Your task to perform on an android device: What's the weather? Image 0: 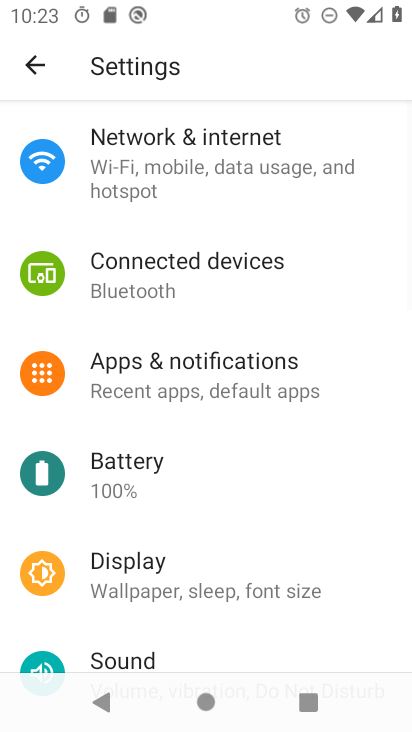
Step 0: press home button
Your task to perform on an android device: What's the weather? Image 1: 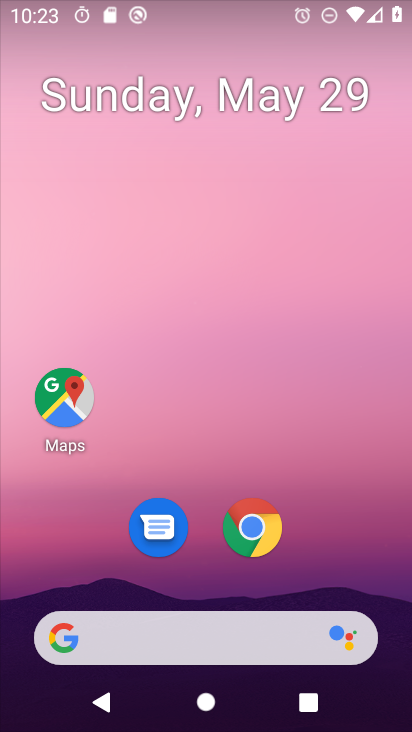
Step 1: drag from (389, 647) to (280, 121)
Your task to perform on an android device: What's the weather? Image 2: 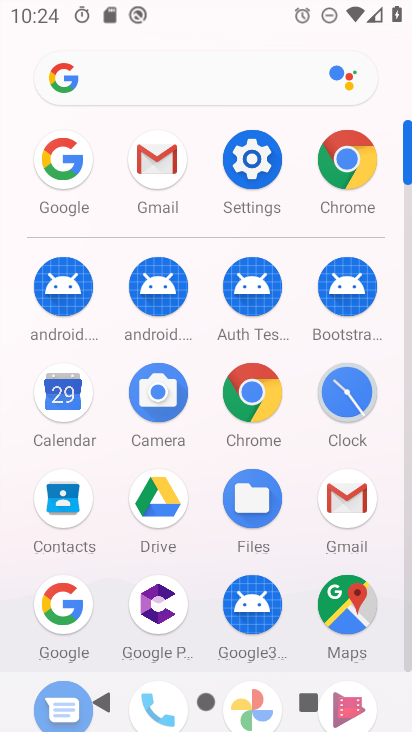
Step 2: click (68, 582)
Your task to perform on an android device: What's the weather? Image 3: 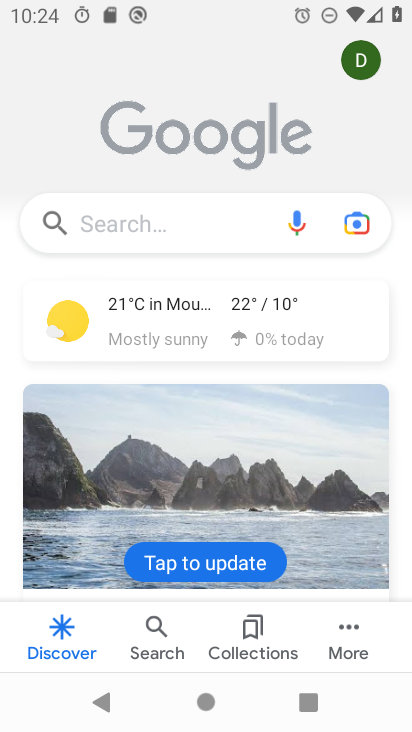
Step 3: click (174, 202)
Your task to perform on an android device: What's the weather? Image 4: 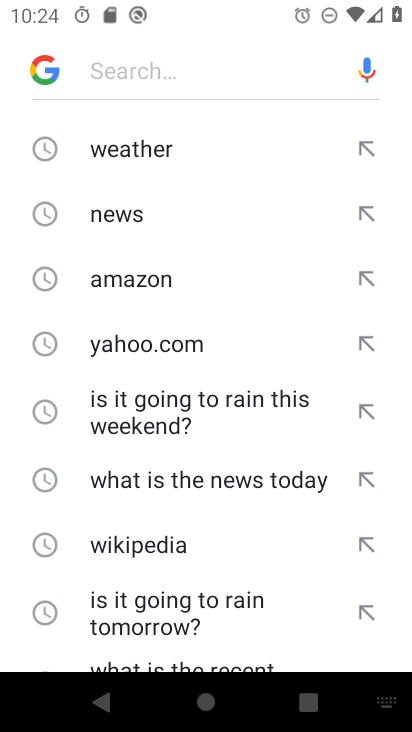
Step 4: click (173, 161)
Your task to perform on an android device: What's the weather? Image 5: 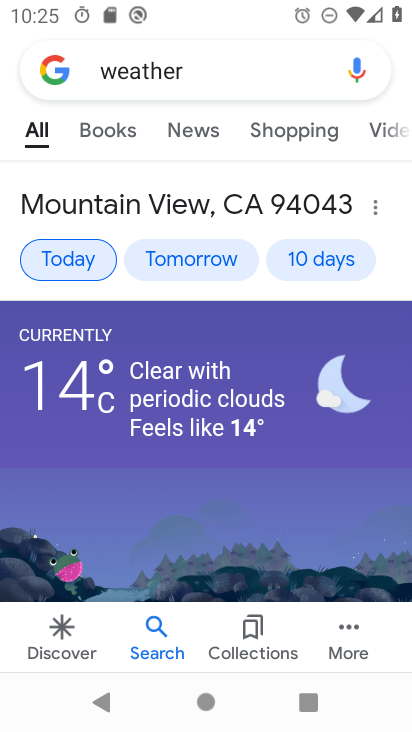
Step 5: task complete